Your task to perform on an android device: see sites visited before in the chrome app Image 0: 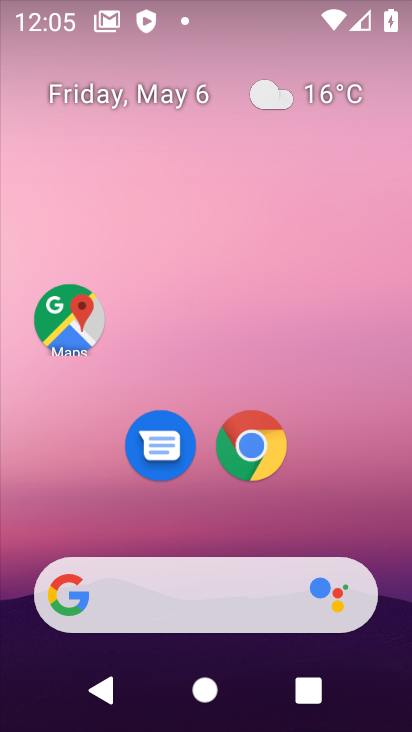
Step 0: drag from (367, 542) to (239, 222)
Your task to perform on an android device: see sites visited before in the chrome app Image 1: 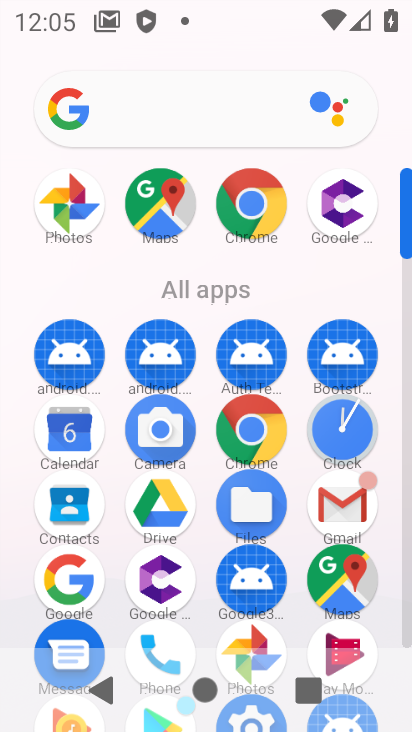
Step 1: click (251, 210)
Your task to perform on an android device: see sites visited before in the chrome app Image 2: 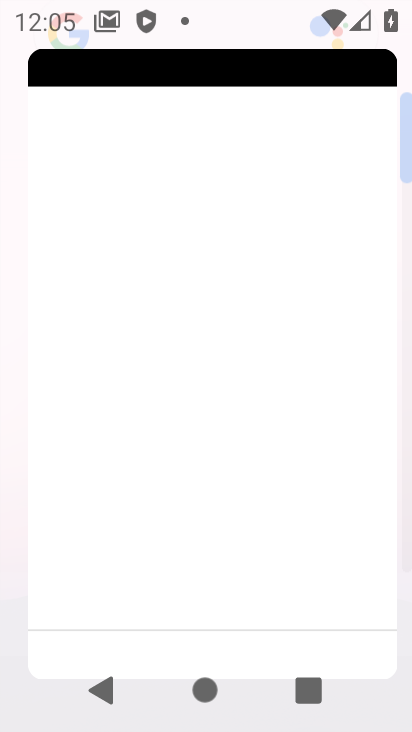
Step 2: click (252, 209)
Your task to perform on an android device: see sites visited before in the chrome app Image 3: 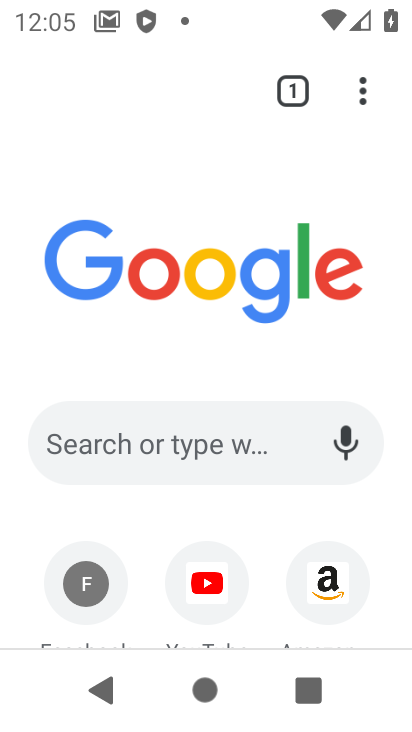
Step 3: drag from (366, 88) to (179, 301)
Your task to perform on an android device: see sites visited before in the chrome app Image 4: 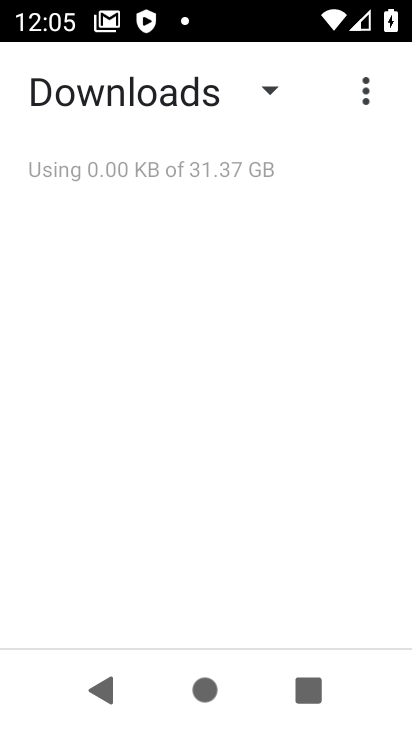
Step 4: click (359, 89)
Your task to perform on an android device: see sites visited before in the chrome app Image 5: 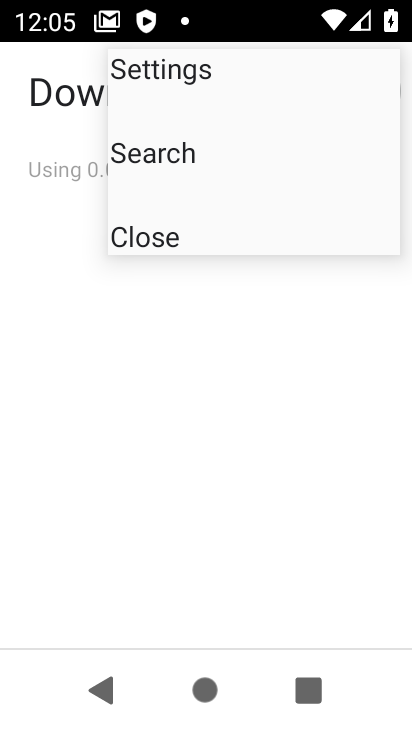
Step 5: click (360, 100)
Your task to perform on an android device: see sites visited before in the chrome app Image 6: 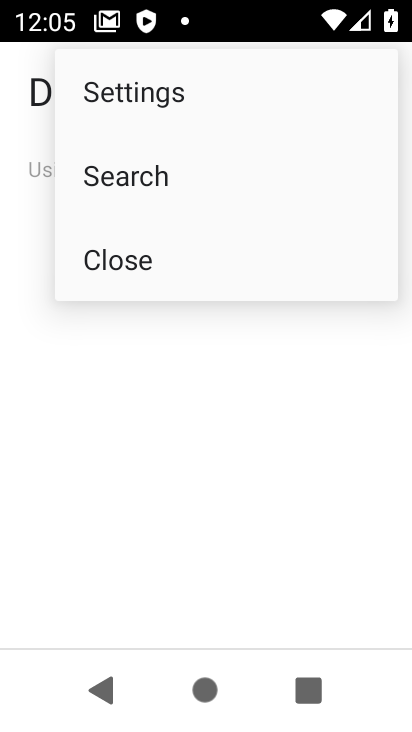
Step 6: click (360, 100)
Your task to perform on an android device: see sites visited before in the chrome app Image 7: 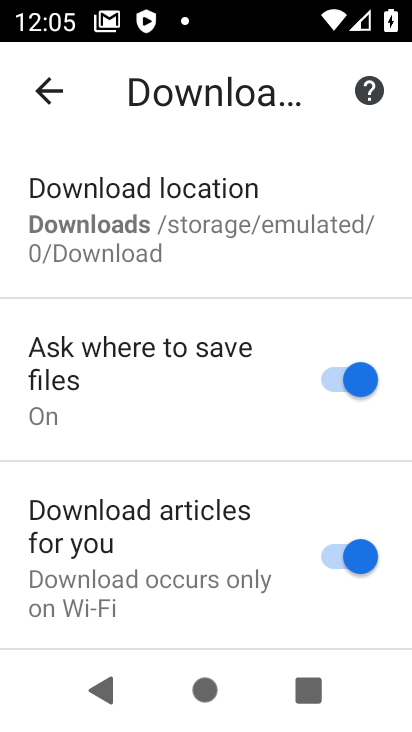
Step 7: click (43, 95)
Your task to perform on an android device: see sites visited before in the chrome app Image 8: 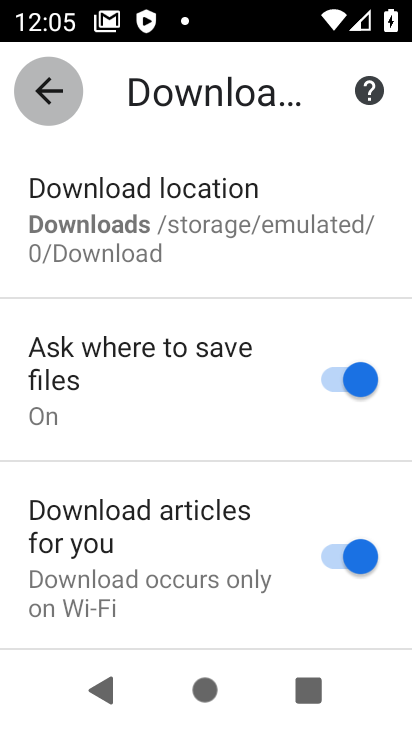
Step 8: click (43, 102)
Your task to perform on an android device: see sites visited before in the chrome app Image 9: 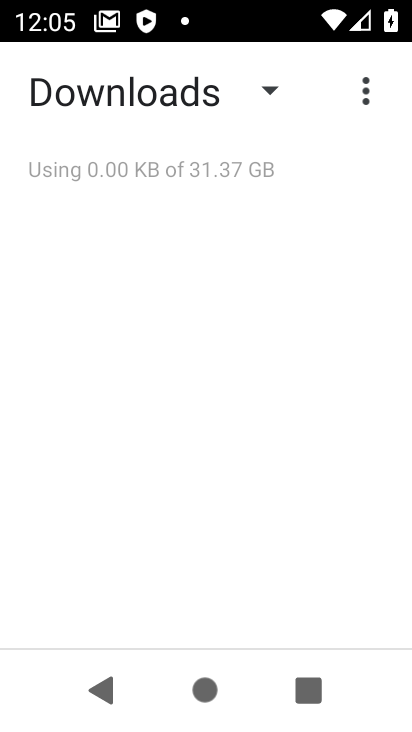
Step 9: click (365, 106)
Your task to perform on an android device: see sites visited before in the chrome app Image 10: 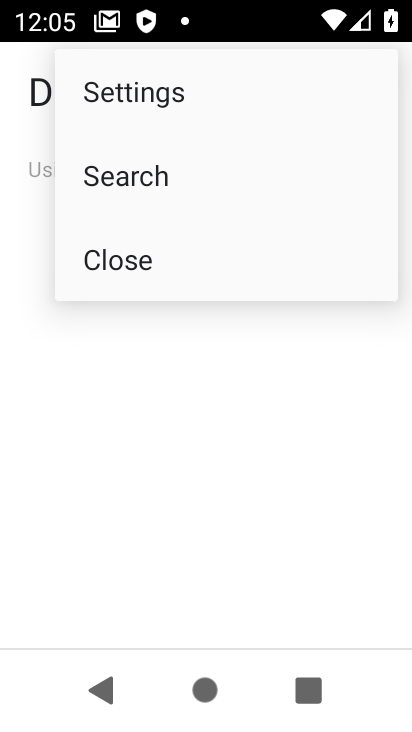
Step 10: click (187, 402)
Your task to perform on an android device: see sites visited before in the chrome app Image 11: 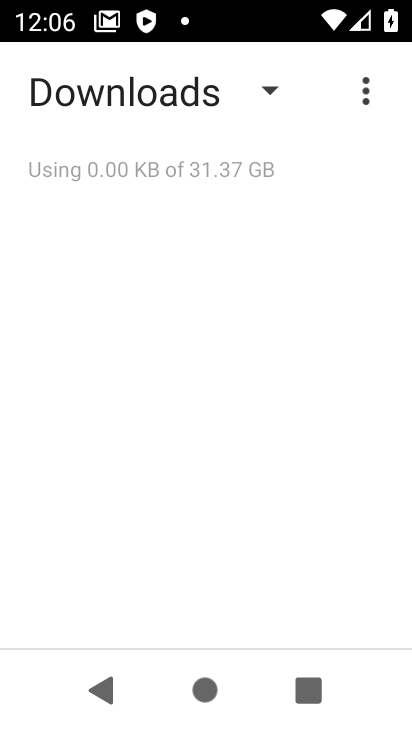
Step 11: press home button
Your task to perform on an android device: see sites visited before in the chrome app Image 12: 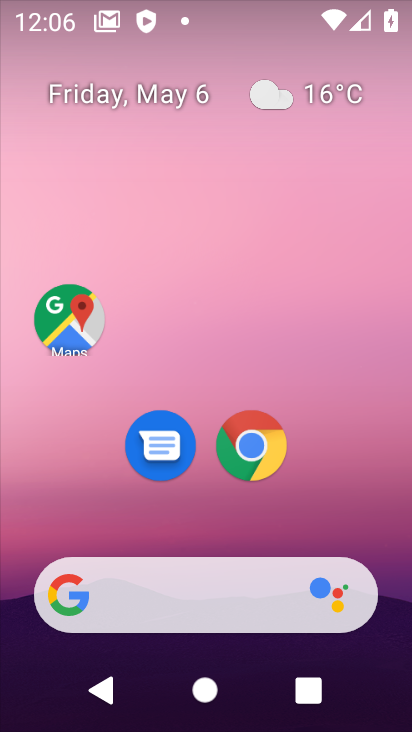
Step 12: drag from (344, 519) to (99, 143)
Your task to perform on an android device: see sites visited before in the chrome app Image 13: 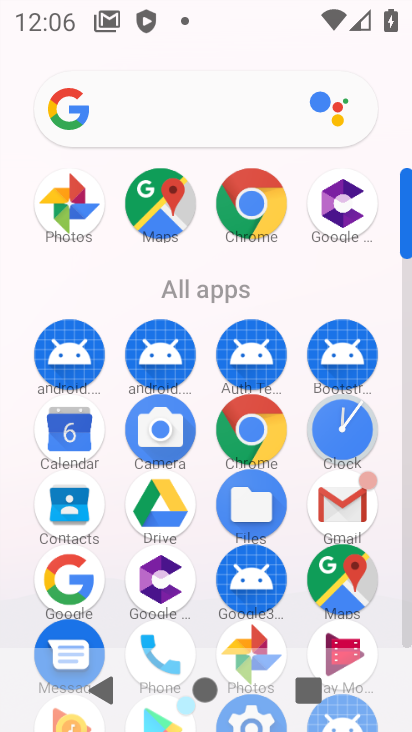
Step 13: click (237, 213)
Your task to perform on an android device: see sites visited before in the chrome app Image 14: 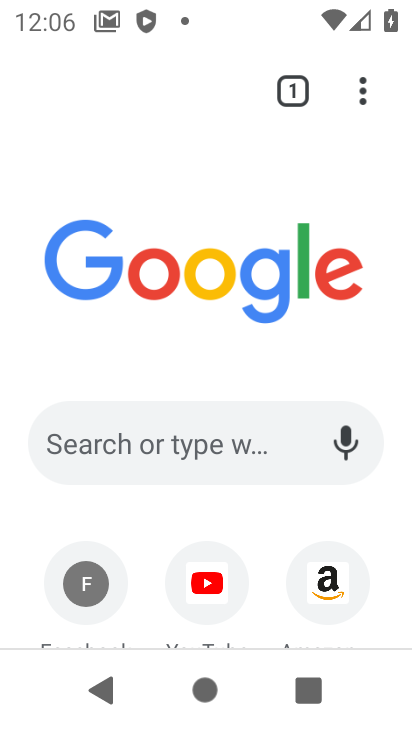
Step 14: click (356, 95)
Your task to perform on an android device: see sites visited before in the chrome app Image 15: 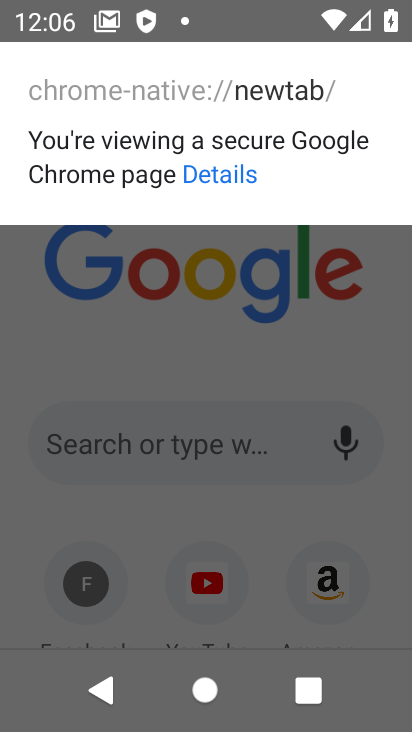
Step 15: click (324, 364)
Your task to perform on an android device: see sites visited before in the chrome app Image 16: 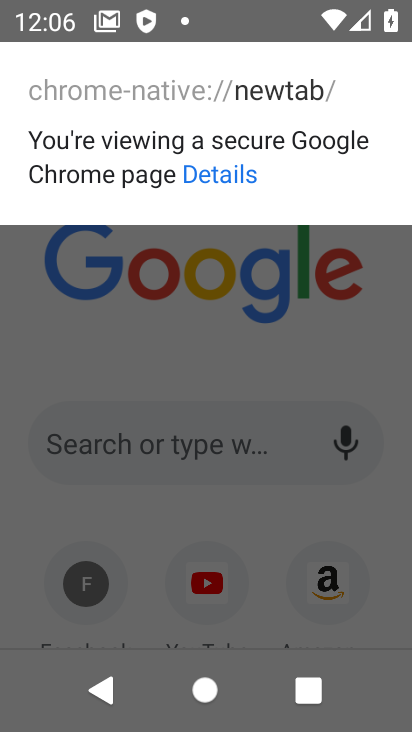
Step 16: click (324, 364)
Your task to perform on an android device: see sites visited before in the chrome app Image 17: 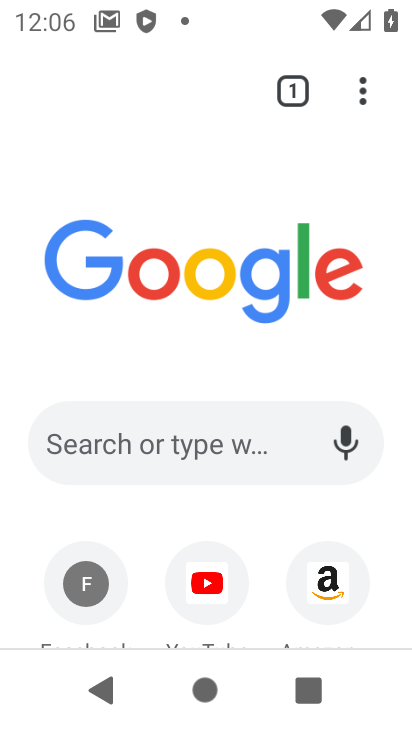
Step 17: click (361, 99)
Your task to perform on an android device: see sites visited before in the chrome app Image 18: 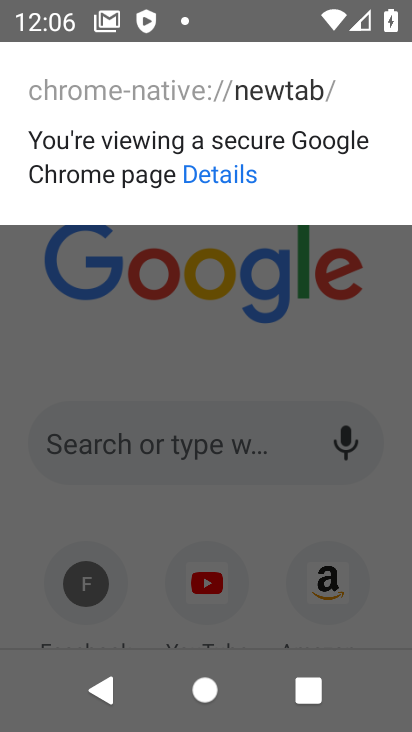
Step 18: click (346, 365)
Your task to perform on an android device: see sites visited before in the chrome app Image 19: 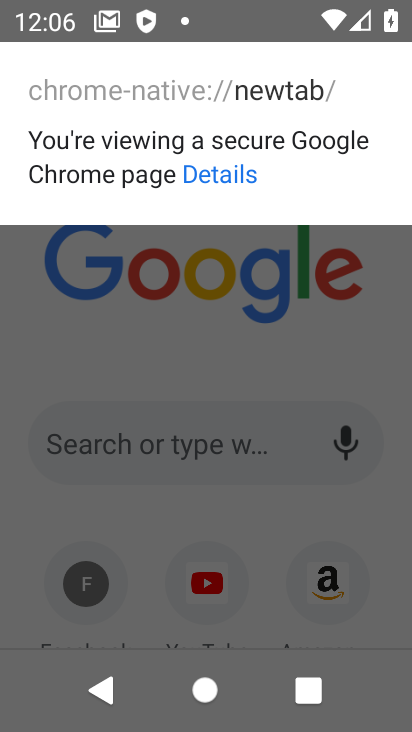
Step 19: click (345, 365)
Your task to perform on an android device: see sites visited before in the chrome app Image 20: 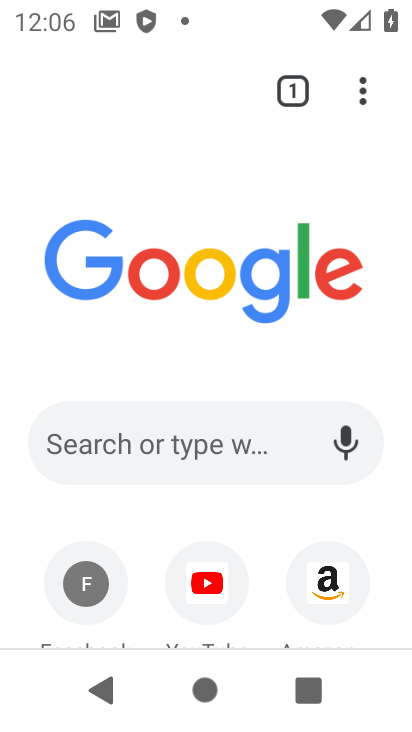
Step 20: drag from (331, 369) to (290, 348)
Your task to perform on an android device: see sites visited before in the chrome app Image 21: 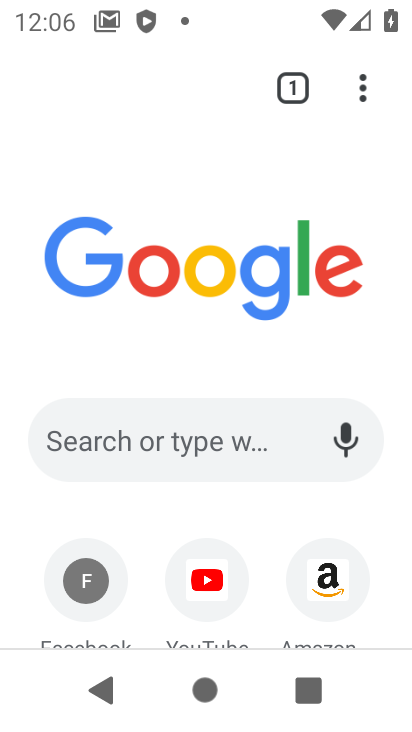
Step 21: click (224, 321)
Your task to perform on an android device: see sites visited before in the chrome app Image 22: 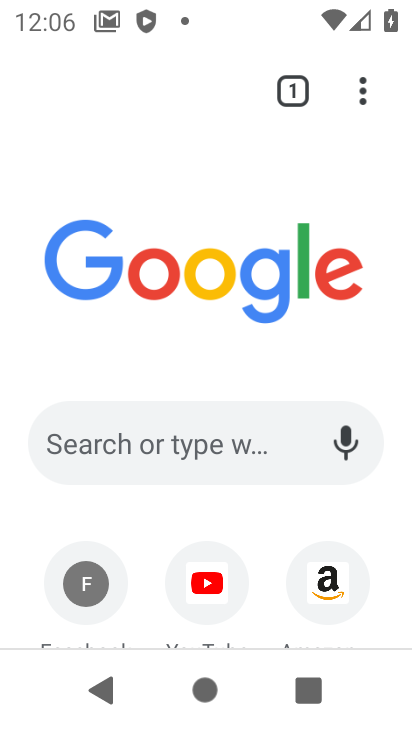
Step 22: drag from (364, 92) to (112, 139)
Your task to perform on an android device: see sites visited before in the chrome app Image 23: 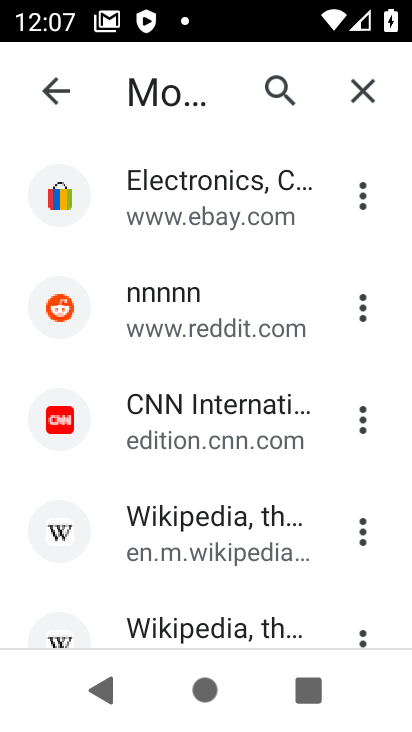
Step 23: click (51, 93)
Your task to perform on an android device: see sites visited before in the chrome app Image 24: 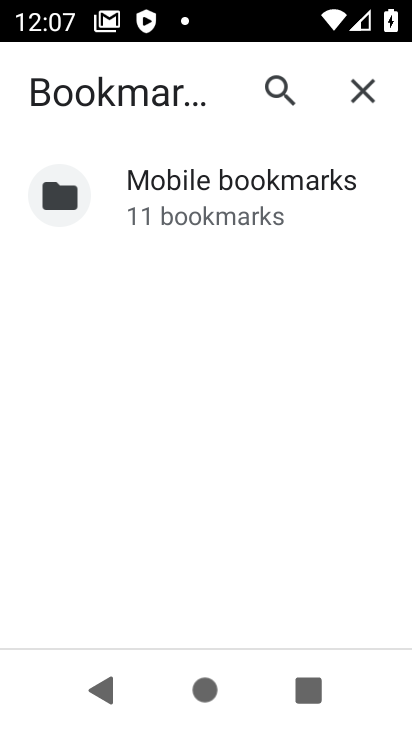
Step 24: click (50, 95)
Your task to perform on an android device: see sites visited before in the chrome app Image 25: 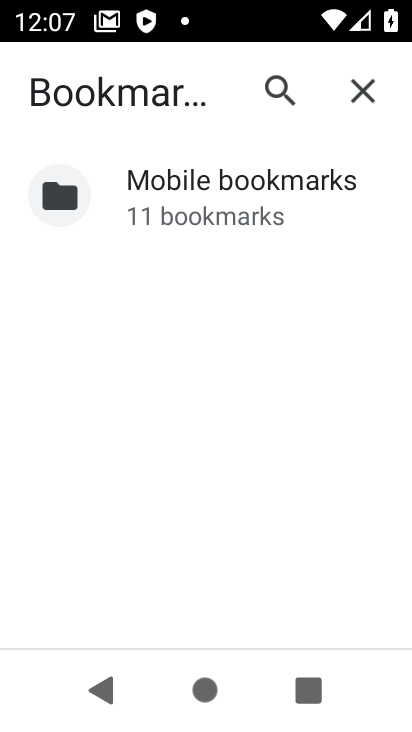
Step 25: click (371, 98)
Your task to perform on an android device: see sites visited before in the chrome app Image 26: 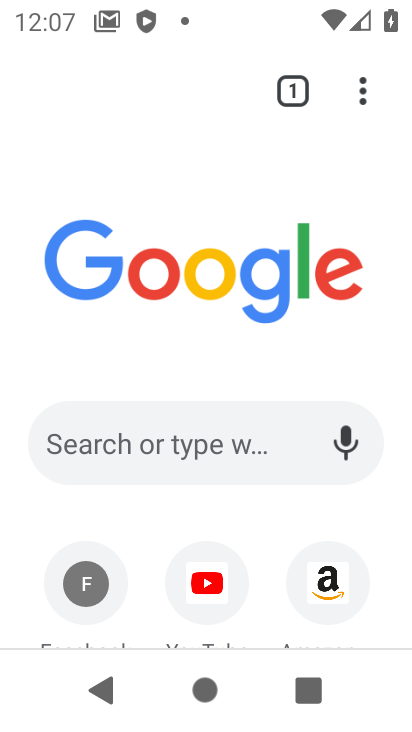
Step 26: click (358, 95)
Your task to perform on an android device: see sites visited before in the chrome app Image 27: 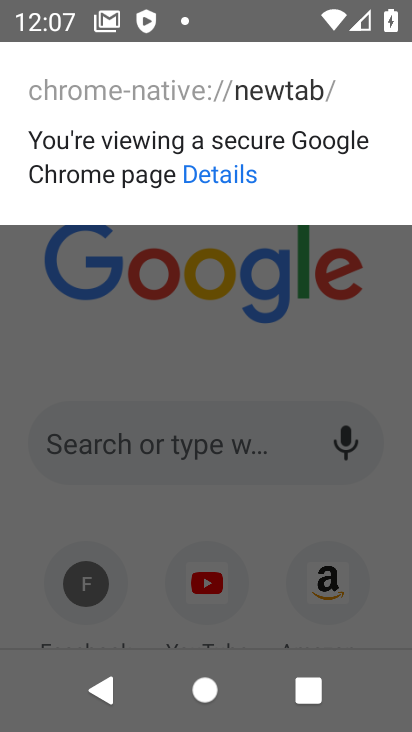
Step 27: click (331, 335)
Your task to perform on an android device: see sites visited before in the chrome app Image 28: 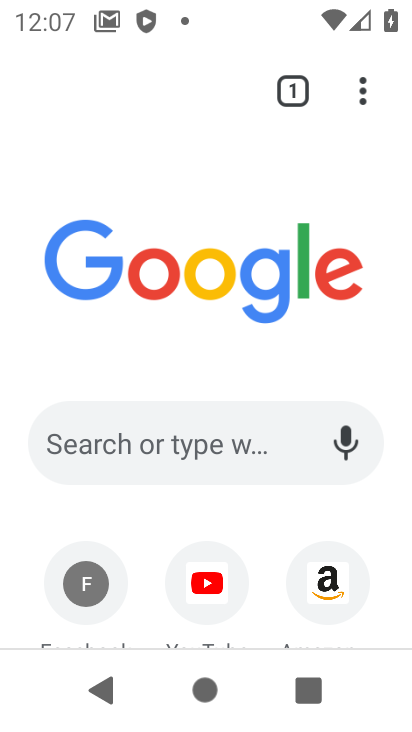
Step 28: click (353, 99)
Your task to perform on an android device: see sites visited before in the chrome app Image 29: 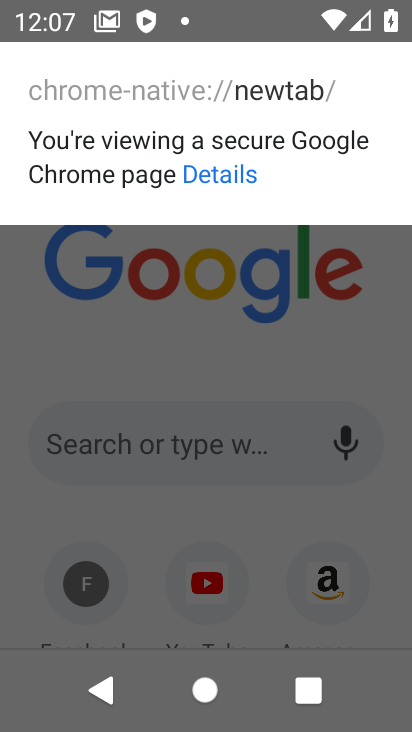
Step 29: click (311, 326)
Your task to perform on an android device: see sites visited before in the chrome app Image 30: 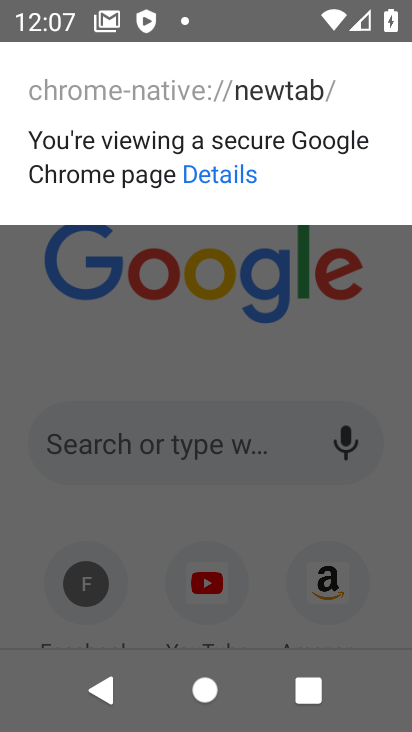
Step 30: click (311, 326)
Your task to perform on an android device: see sites visited before in the chrome app Image 31: 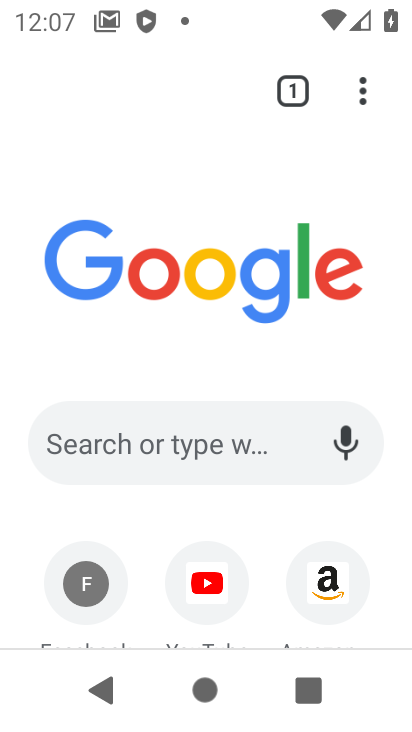
Step 31: drag from (358, 96) to (113, 429)
Your task to perform on an android device: see sites visited before in the chrome app Image 32: 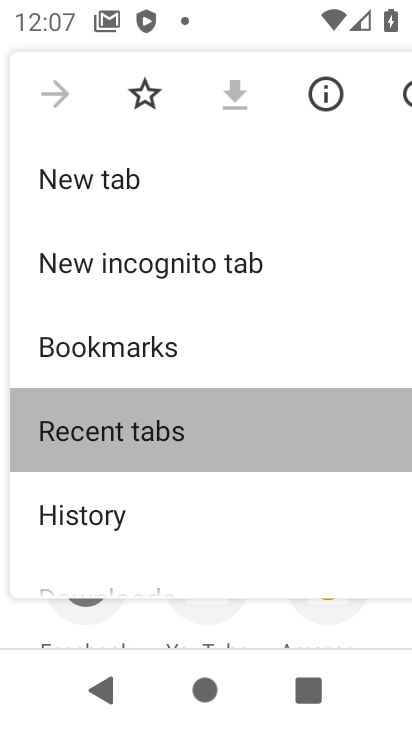
Step 32: click (112, 441)
Your task to perform on an android device: see sites visited before in the chrome app Image 33: 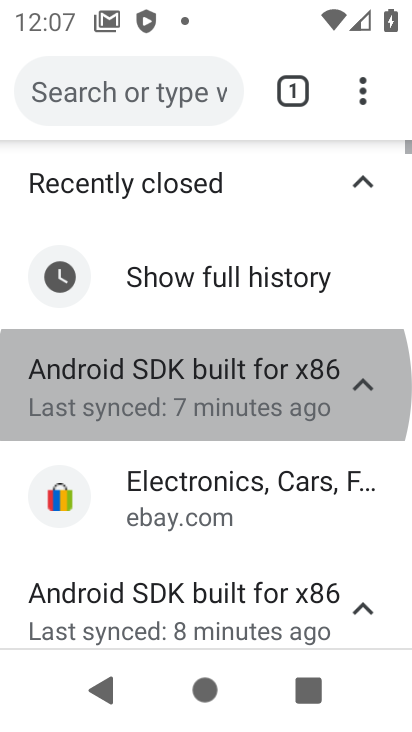
Step 33: click (113, 445)
Your task to perform on an android device: see sites visited before in the chrome app Image 34: 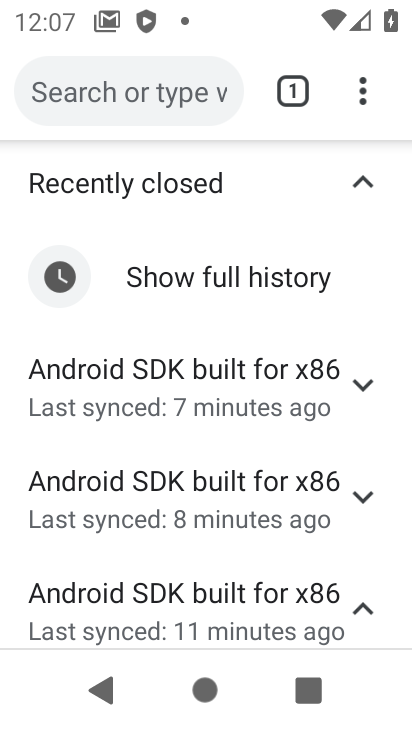
Step 34: drag from (231, 542) to (201, 147)
Your task to perform on an android device: see sites visited before in the chrome app Image 35: 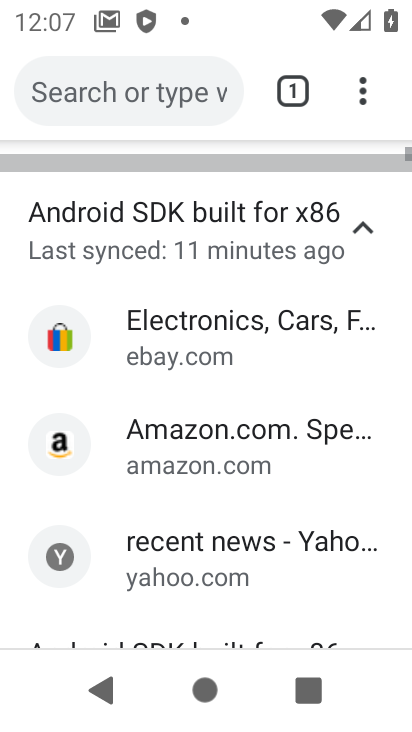
Step 35: drag from (254, 468) to (219, 174)
Your task to perform on an android device: see sites visited before in the chrome app Image 36: 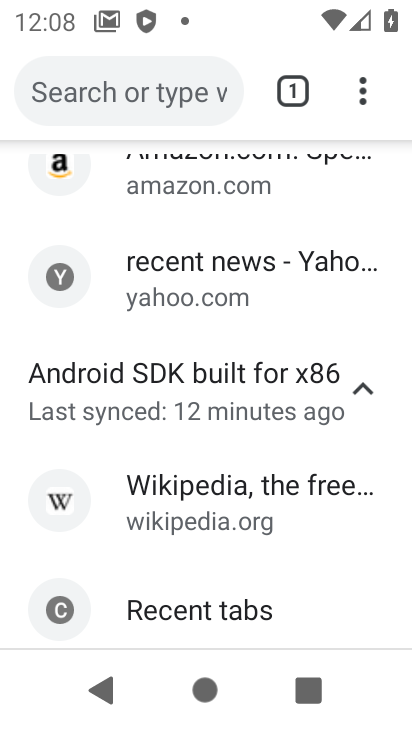
Step 36: press home button
Your task to perform on an android device: see sites visited before in the chrome app Image 37: 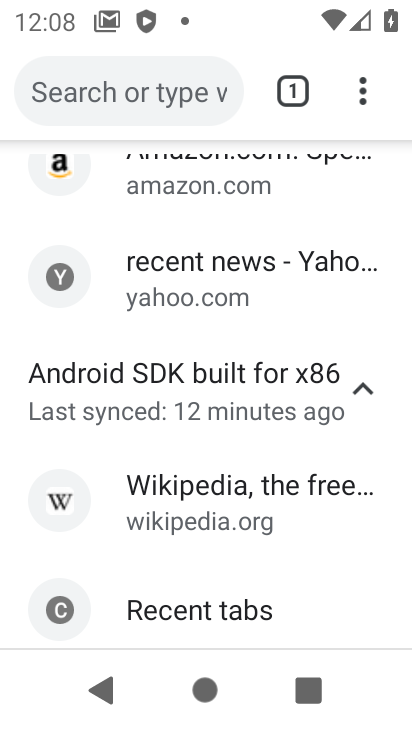
Step 37: press home button
Your task to perform on an android device: see sites visited before in the chrome app Image 38: 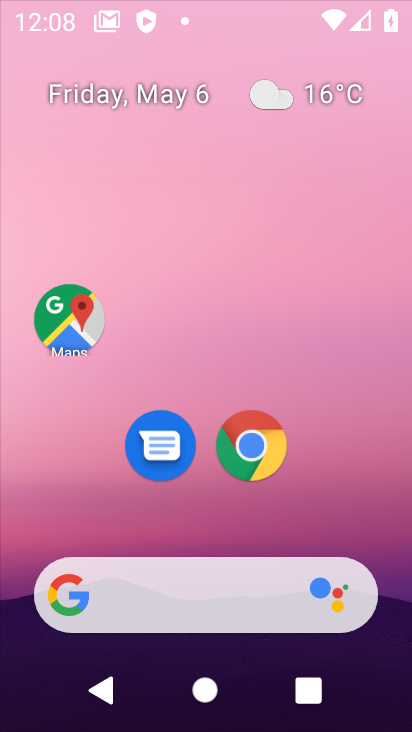
Step 38: press home button
Your task to perform on an android device: see sites visited before in the chrome app Image 39: 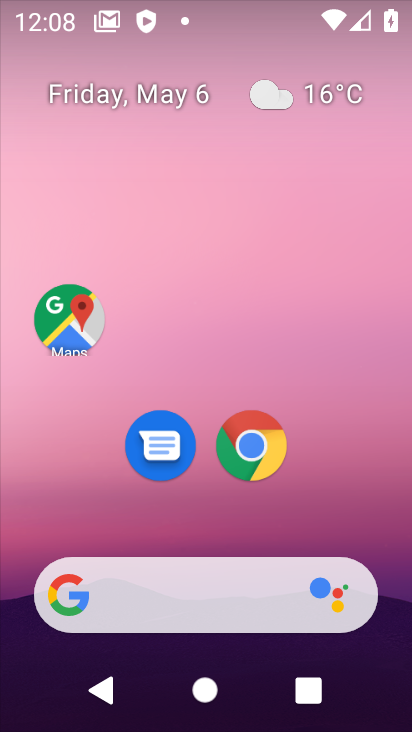
Step 39: press home button
Your task to perform on an android device: see sites visited before in the chrome app Image 40: 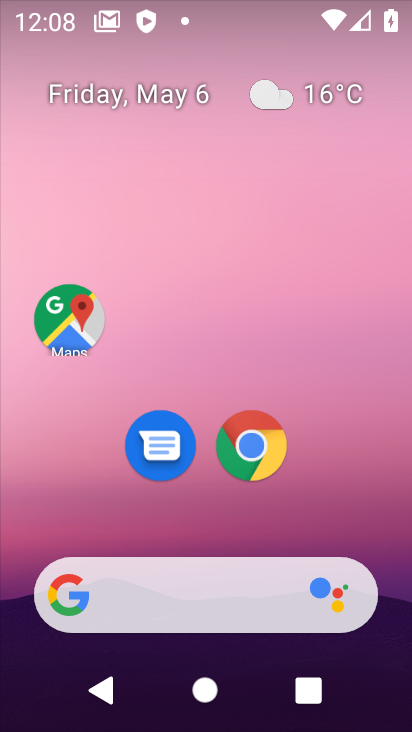
Step 40: drag from (333, 509) to (126, 0)
Your task to perform on an android device: see sites visited before in the chrome app Image 41: 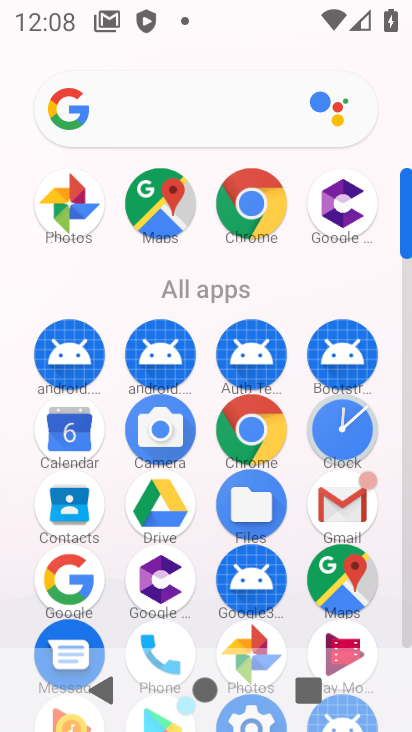
Step 41: click (247, 201)
Your task to perform on an android device: see sites visited before in the chrome app Image 42: 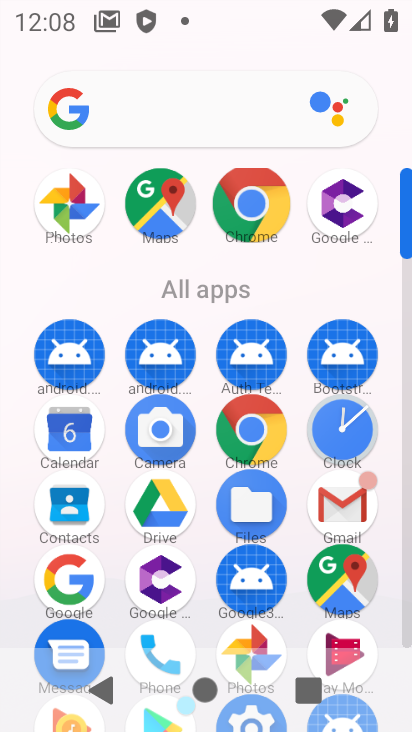
Step 42: click (247, 201)
Your task to perform on an android device: see sites visited before in the chrome app Image 43: 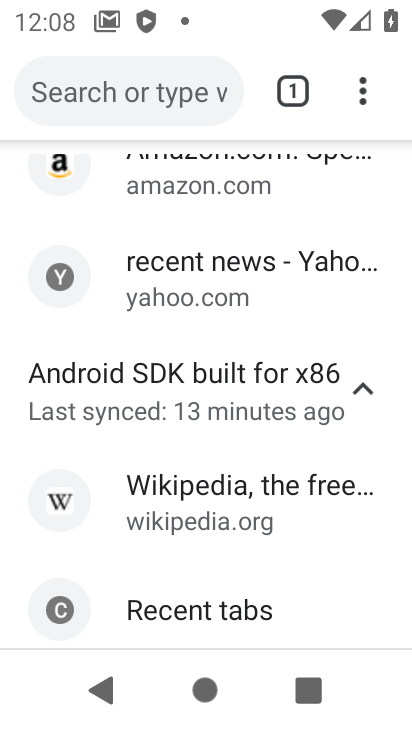
Step 43: drag from (265, 528) to (167, 175)
Your task to perform on an android device: see sites visited before in the chrome app Image 44: 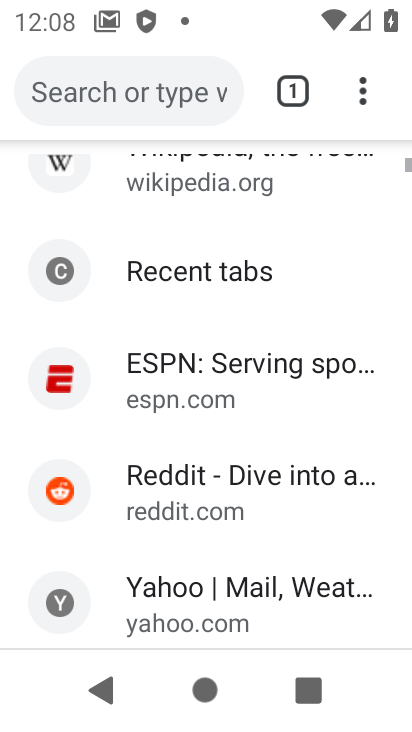
Step 44: drag from (229, 454) to (121, 69)
Your task to perform on an android device: see sites visited before in the chrome app Image 45: 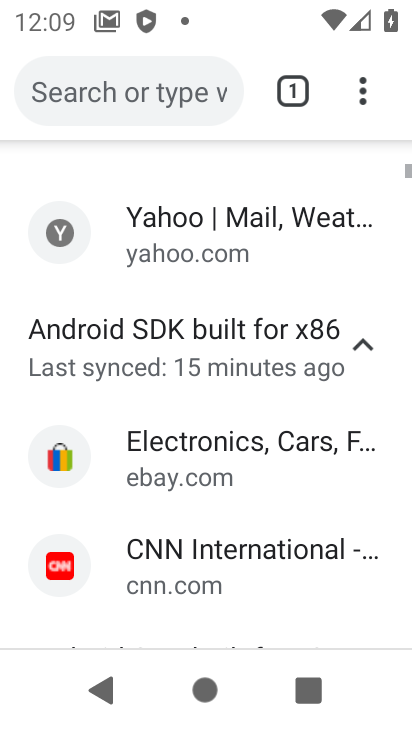
Step 45: drag from (103, 406) to (92, 219)
Your task to perform on an android device: see sites visited before in the chrome app Image 46: 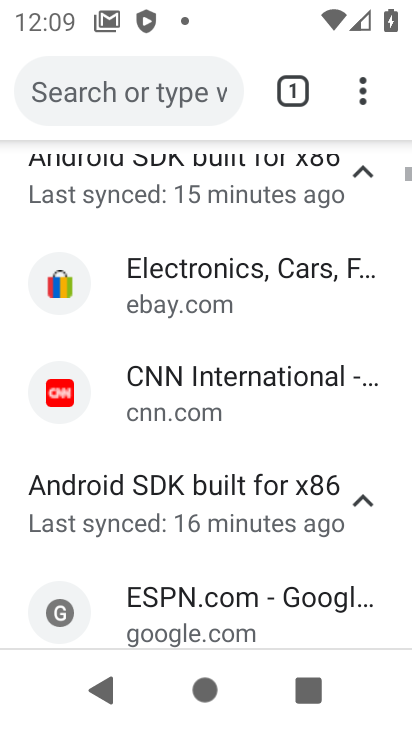
Step 46: drag from (179, 381) to (127, 174)
Your task to perform on an android device: see sites visited before in the chrome app Image 47: 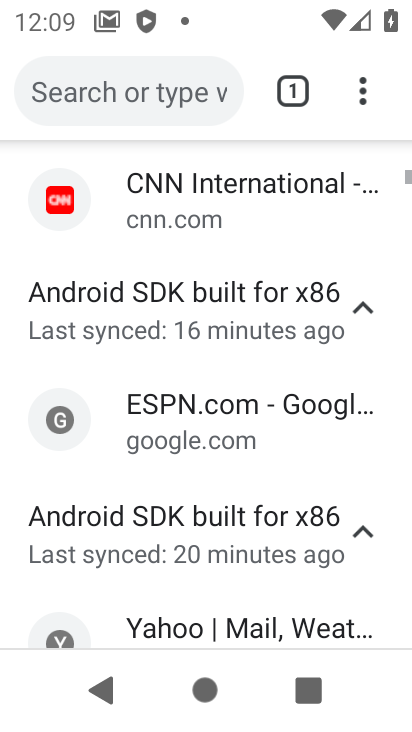
Step 47: drag from (213, 231) to (237, 494)
Your task to perform on an android device: see sites visited before in the chrome app Image 48: 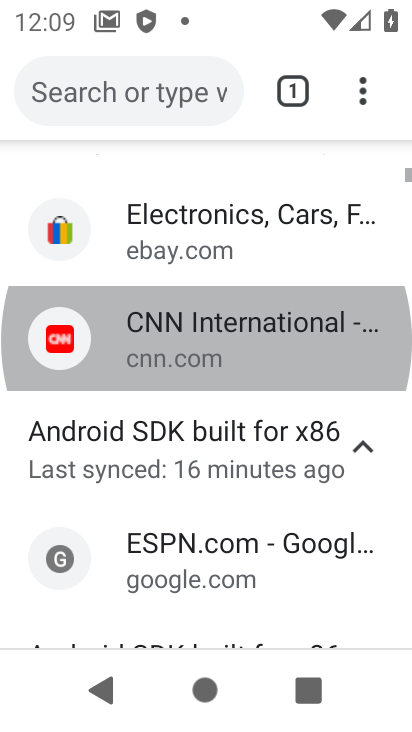
Step 48: drag from (180, 279) to (211, 507)
Your task to perform on an android device: see sites visited before in the chrome app Image 49: 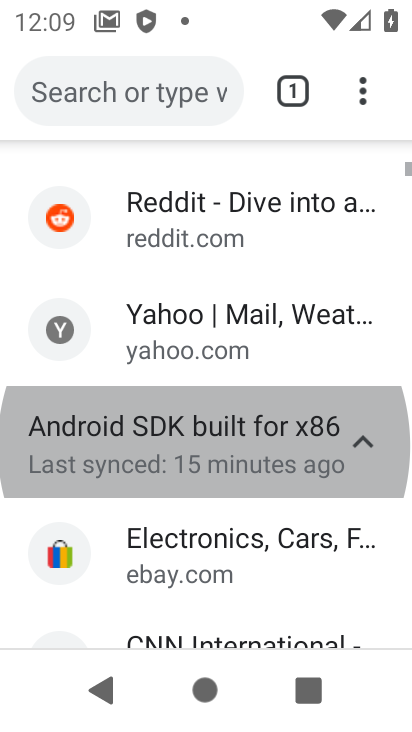
Step 49: drag from (190, 415) to (208, 527)
Your task to perform on an android device: see sites visited before in the chrome app Image 50: 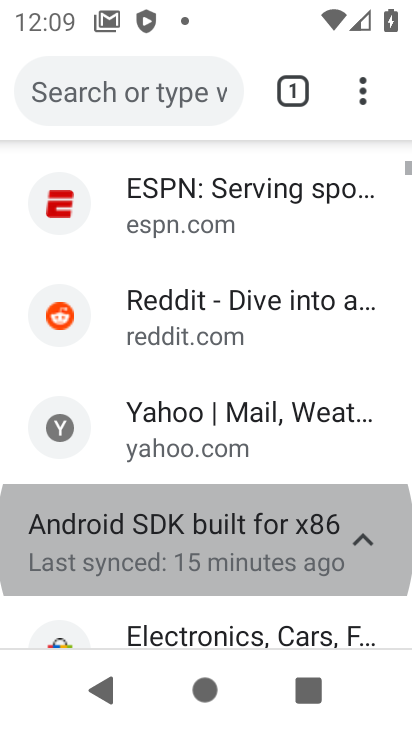
Step 50: click (169, 466)
Your task to perform on an android device: see sites visited before in the chrome app Image 51: 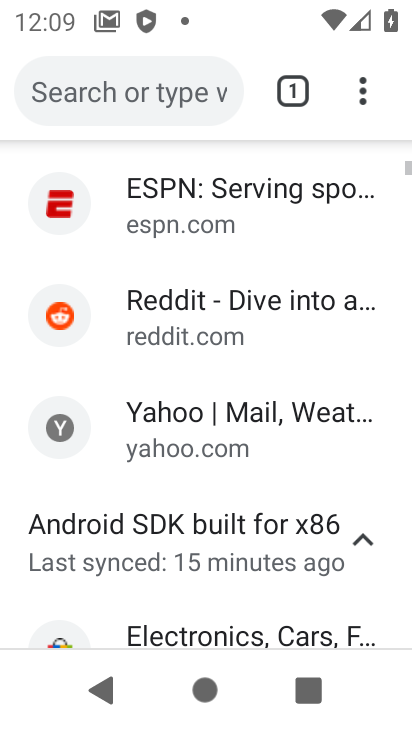
Step 51: task complete